Your task to perform on an android device: Go to accessibility settings Image 0: 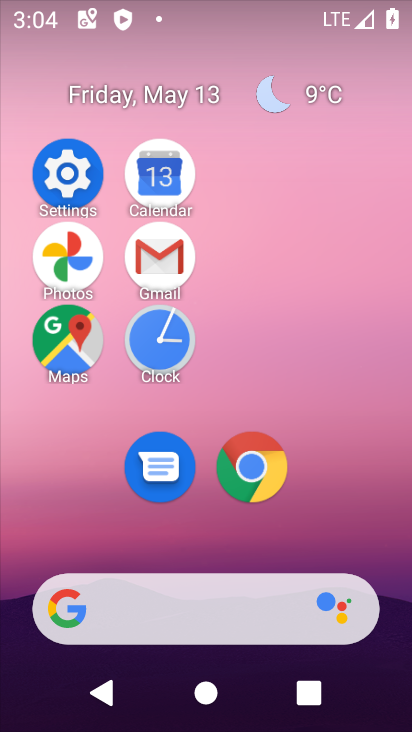
Step 0: click (74, 176)
Your task to perform on an android device: Go to accessibility settings Image 1: 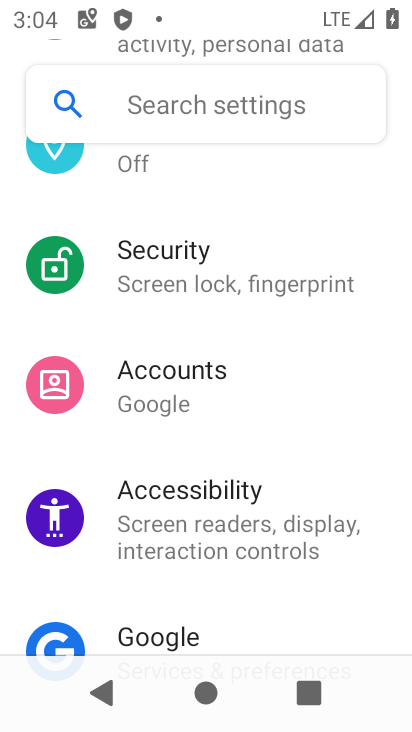
Step 1: click (276, 534)
Your task to perform on an android device: Go to accessibility settings Image 2: 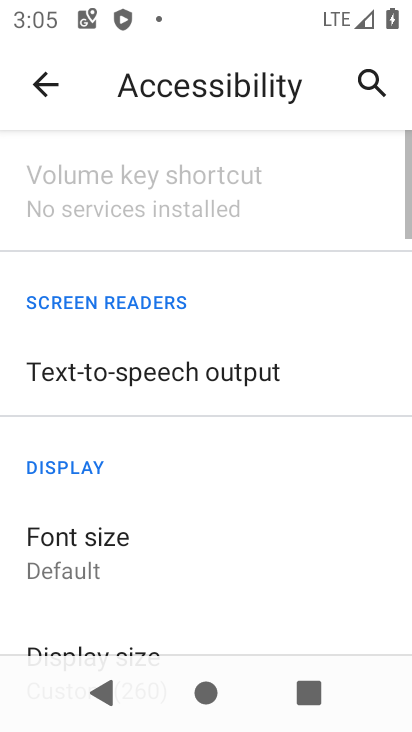
Step 2: task complete